Your task to perform on an android device: Open Chrome and go to settings Image 0: 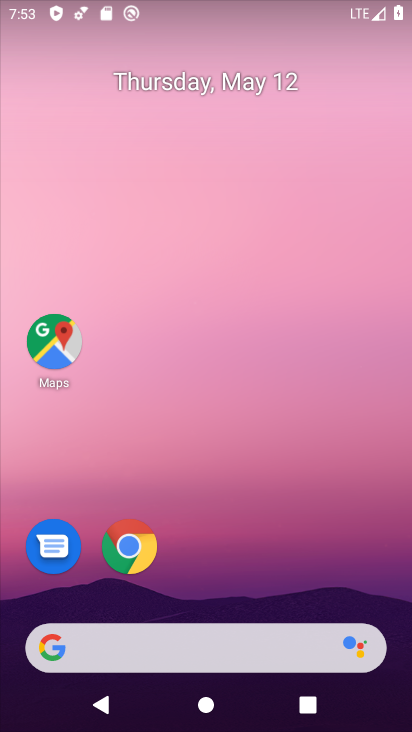
Step 0: click (133, 540)
Your task to perform on an android device: Open Chrome and go to settings Image 1: 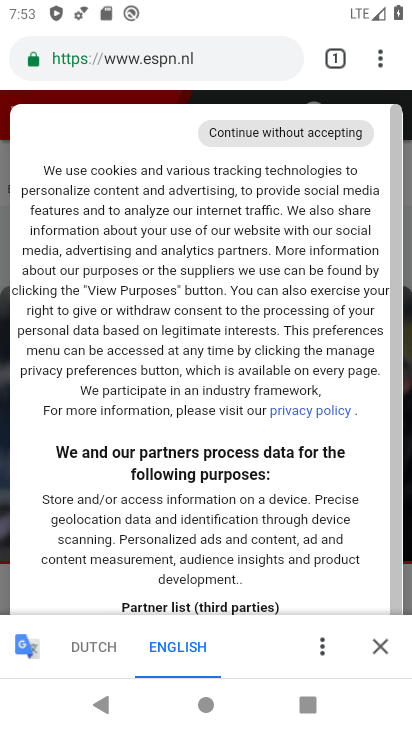
Step 1: click (382, 56)
Your task to perform on an android device: Open Chrome and go to settings Image 2: 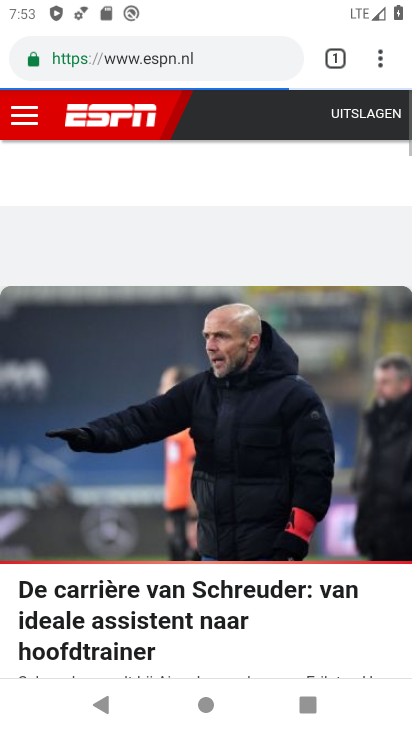
Step 2: task complete